Your task to perform on an android device: Show the shopping cart on walmart. Search for "razer naga" on walmart, select the first entry, and add it to the cart. Image 0: 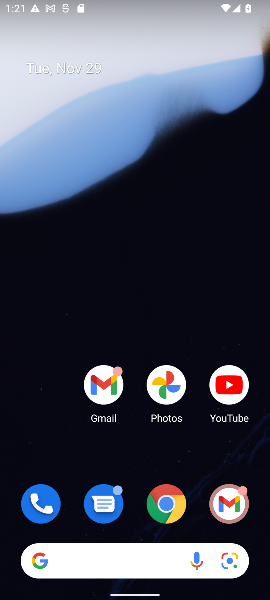
Step 0: click (170, 504)
Your task to perform on an android device: Show the shopping cart on walmart. Search for "razer naga" on walmart, select the first entry, and add it to the cart. Image 1: 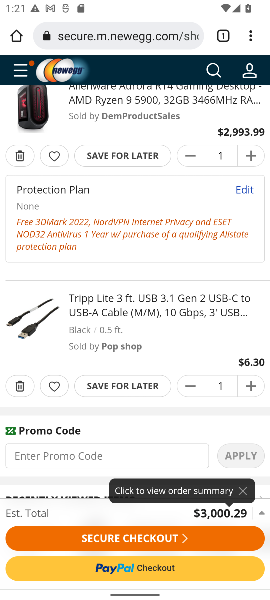
Step 1: click (100, 36)
Your task to perform on an android device: Show the shopping cart on walmart. Search for "razer naga" on walmart, select the first entry, and add it to the cart. Image 2: 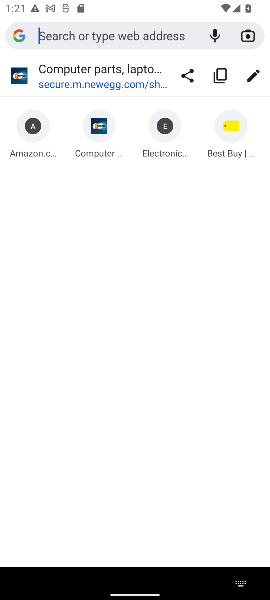
Step 2: type "walmart.com"
Your task to perform on an android device: Show the shopping cart on walmart. Search for "razer naga" on walmart, select the first entry, and add it to the cart. Image 3: 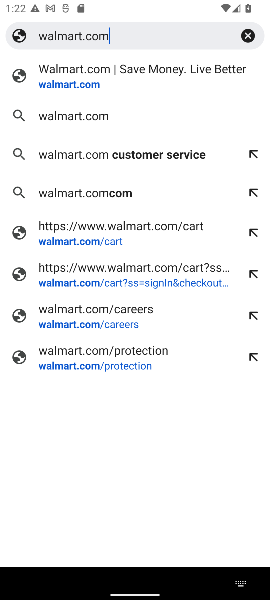
Step 3: click (46, 81)
Your task to perform on an android device: Show the shopping cart on walmart. Search for "razer naga" on walmart, select the first entry, and add it to the cart. Image 4: 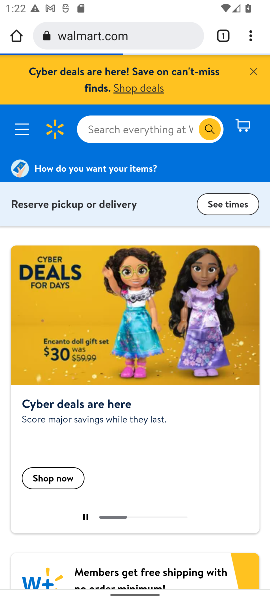
Step 4: click (248, 124)
Your task to perform on an android device: Show the shopping cart on walmart. Search for "razer naga" on walmart, select the first entry, and add it to the cart. Image 5: 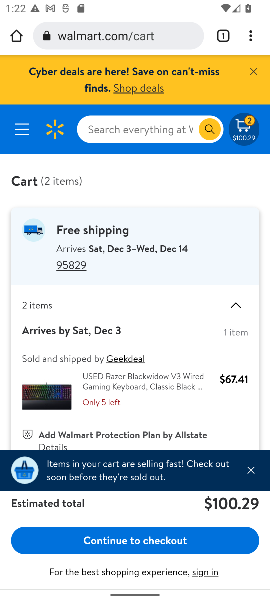
Step 5: click (125, 132)
Your task to perform on an android device: Show the shopping cart on walmart. Search for "razer naga" on walmart, select the first entry, and add it to the cart. Image 6: 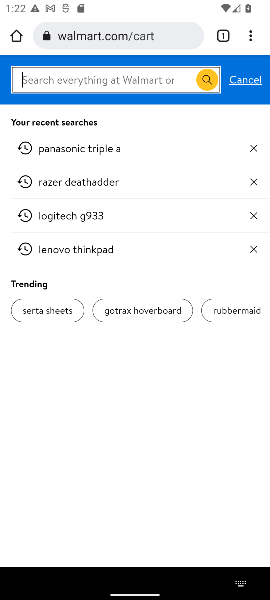
Step 6: type "razer naga"
Your task to perform on an android device: Show the shopping cart on walmart. Search for "razer naga" on walmart, select the first entry, and add it to the cart. Image 7: 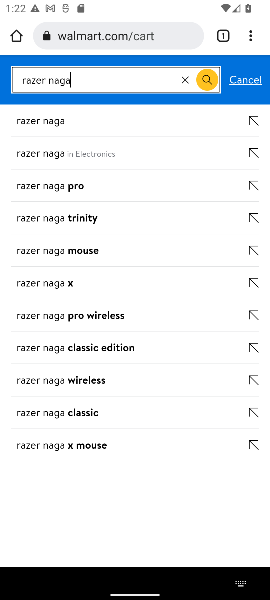
Step 7: click (41, 119)
Your task to perform on an android device: Show the shopping cart on walmart. Search for "razer naga" on walmart, select the first entry, and add it to the cart. Image 8: 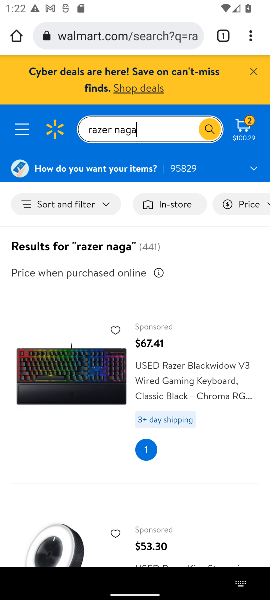
Step 8: task complete